Your task to perform on an android device: Is it going to rain tomorrow? Image 0: 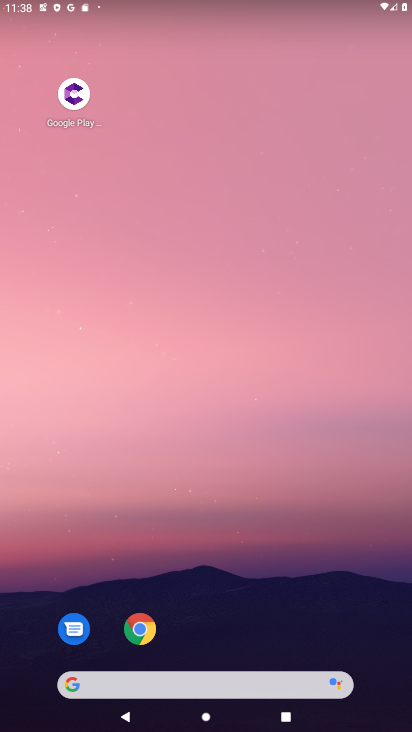
Step 0: drag from (278, 498) to (218, 142)
Your task to perform on an android device: Is it going to rain tomorrow? Image 1: 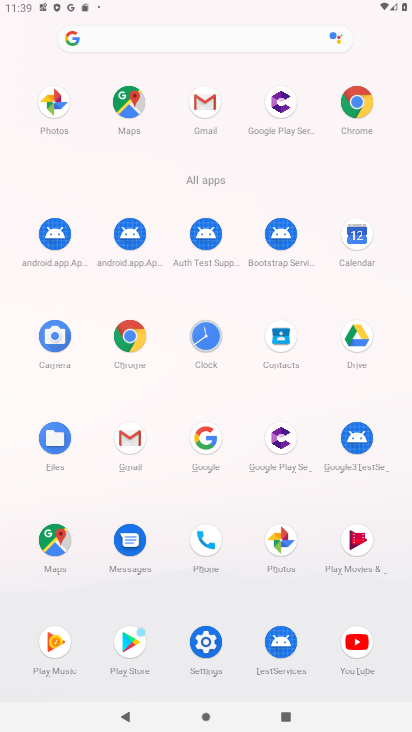
Step 1: click (360, 100)
Your task to perform on an android device: Is it going to rain tomorrow? Image 2: 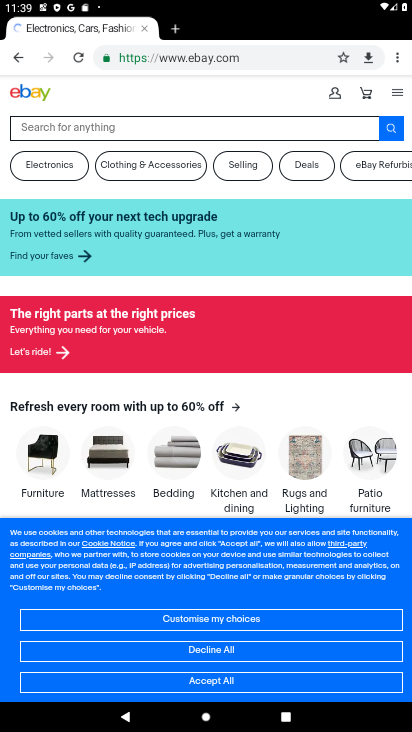
Step 2: click (273, 59)
Your task to perform on an android device: Is it going to rain tomorrow? Image 3: 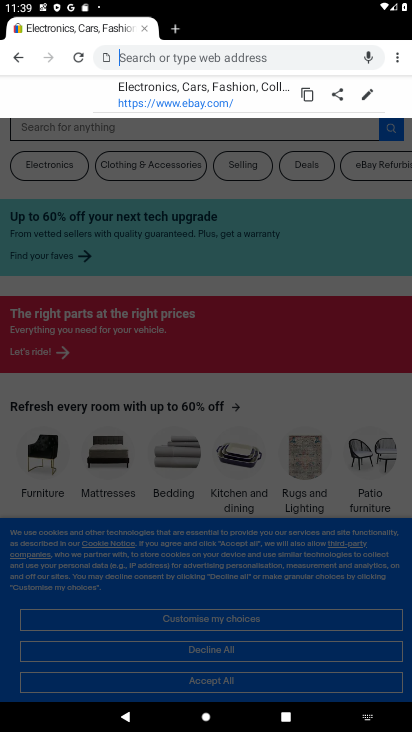
Step 3: type "weather"
Your task to perform on an android device: Is it going to rain tomorrow? Image 4: 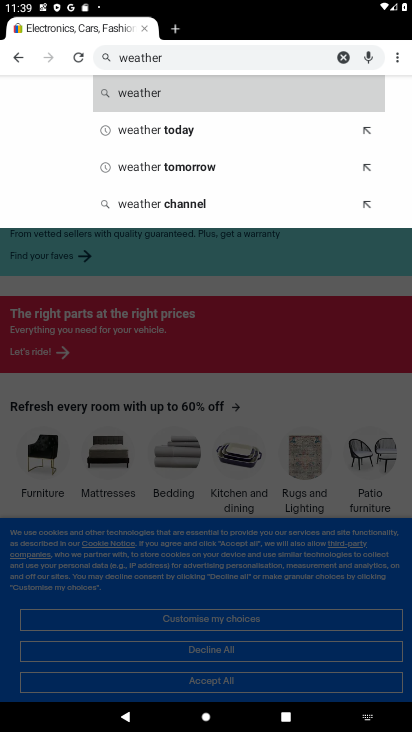
Step 4: click (143, 87)
Your task to perform on an android device: Is it going to rain tomorrow? Image 5: 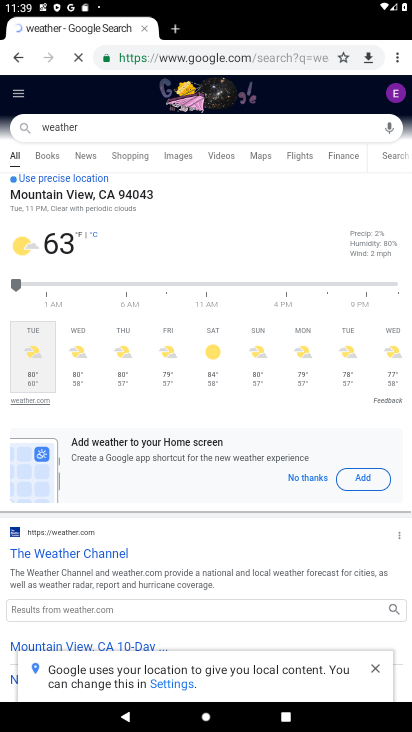
Step 5: click (81, 357)
Your task to perform on an android device: Is it going to rain tomorrow? Image 6: 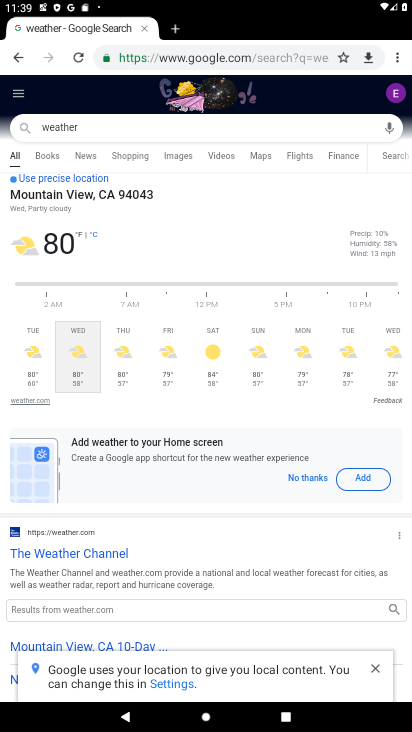
Step 6: task complete